Your task to perform on an android device: Open display settings Image 0: 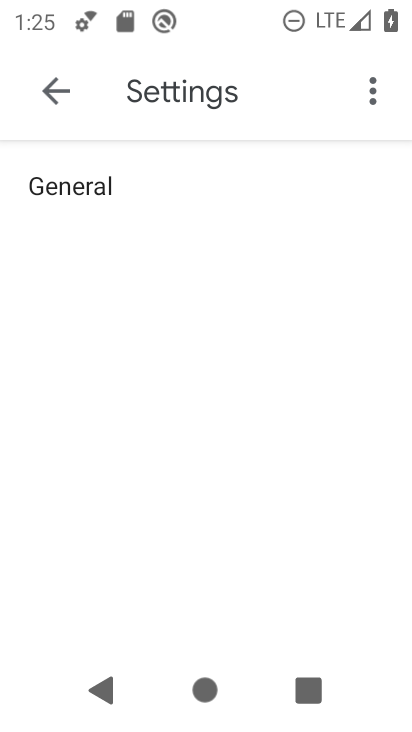
Step 0: press home button
Your task to perform on an android device: Open display settings Image 1: 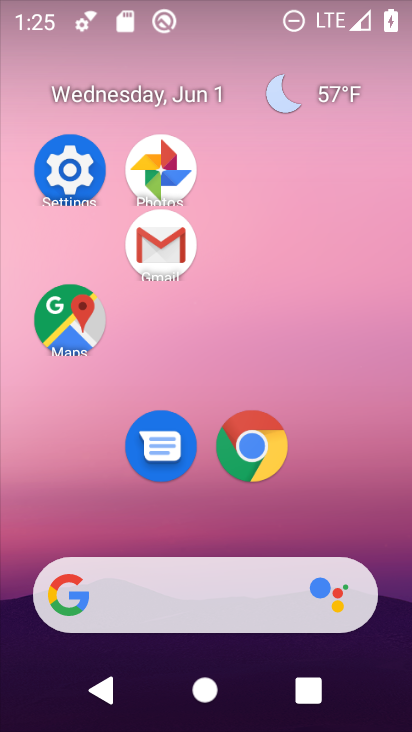
Step 1: click (74, 139)
Your task to perform on an android device: Open display settings Image 2: 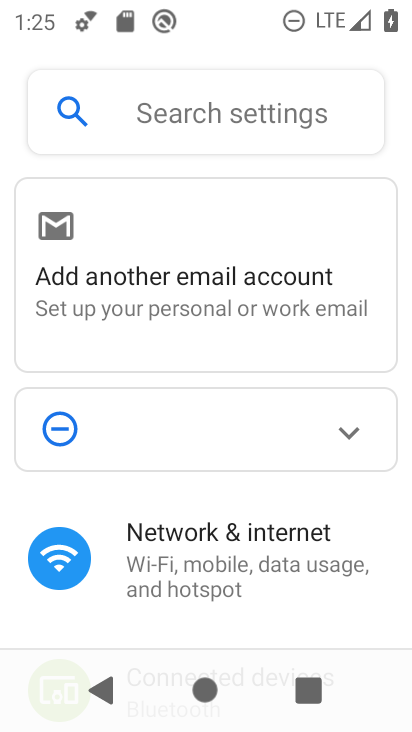
Step 2: drag from (263, 587) to (250, 184)
Your task to perform on an android device: Open display settings Image 3: 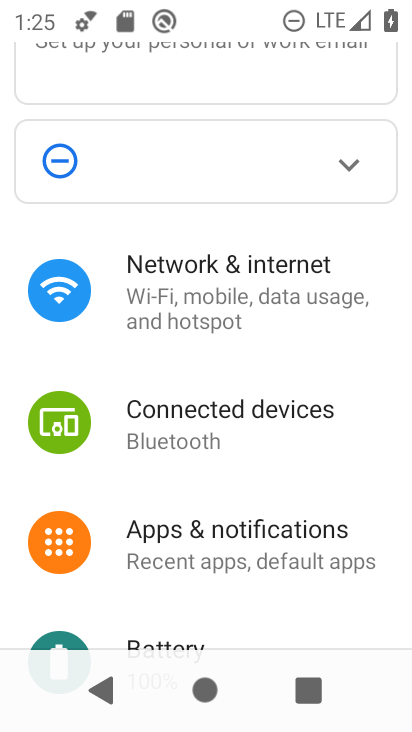
Step 3: drag from (300, 519) to (257, 156)
Your task to perform on an android device: Open display settings Image 4: 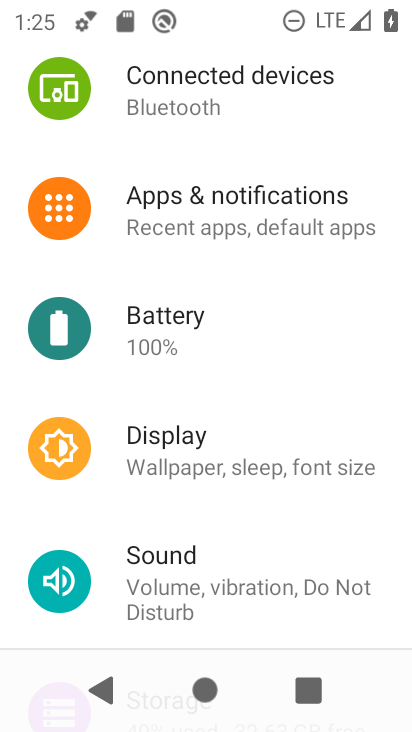
Step 4: drag from (335, 498) to (388, 67)
Your task to perform on an android device: Open display settings Image 5: 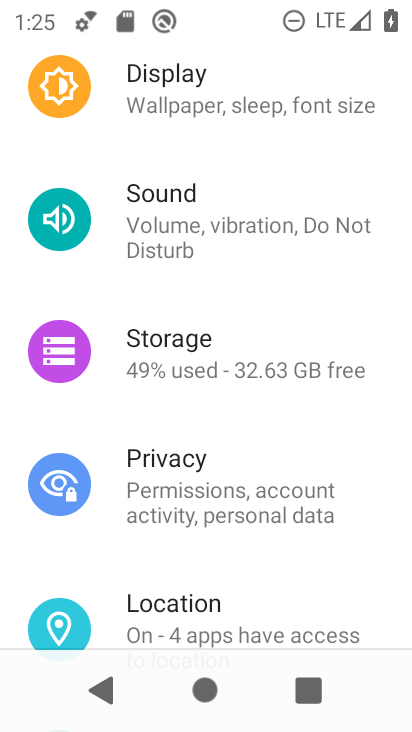
Step 5: click (196, 92)
Your task to perform on an android device: Open display settings Image 6: 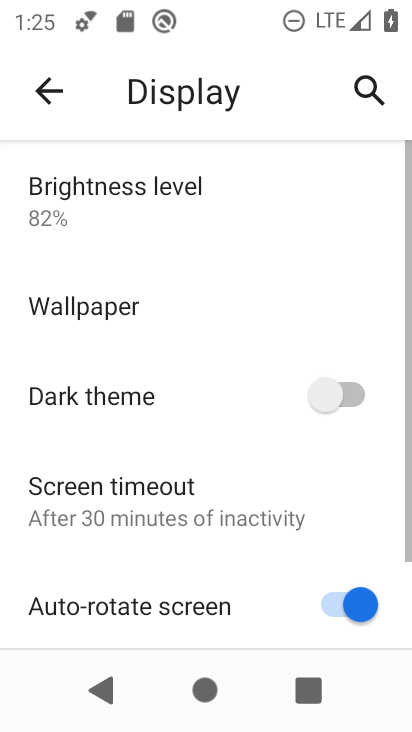
Step 6: task complete